Your task to perform on an android device: empty trash in google photos Image 0: 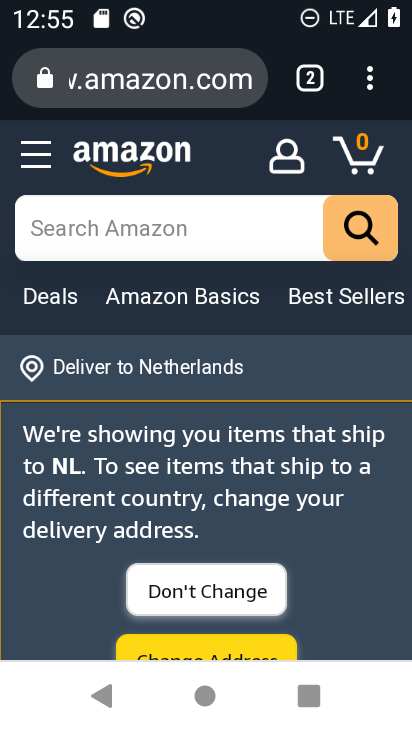
Step 0: press home button
Your task to perform on an android device: empty trash in google photos Image 1: 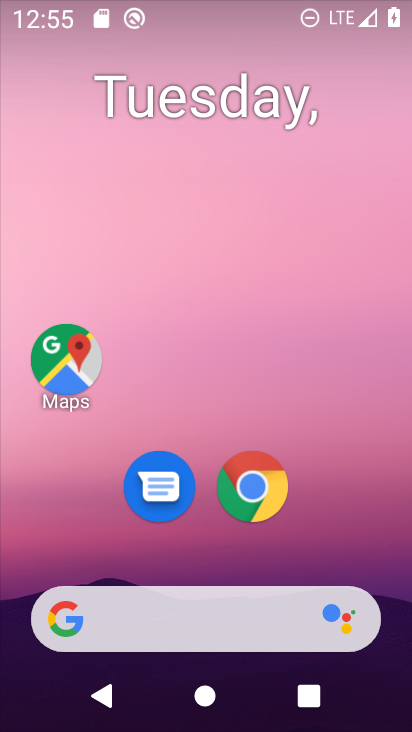
Step 1: drag from (311, 577) to (290, 130)
Your task to perform on an android device: empty trash in google photos Image 2: 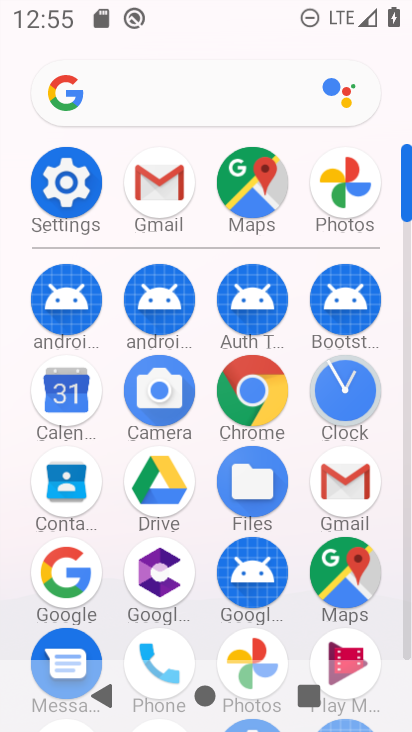
Step 2: drag from (217, 257) to (197, 50)
Your task to perform on an android device: empty trash in google photos Image 3: 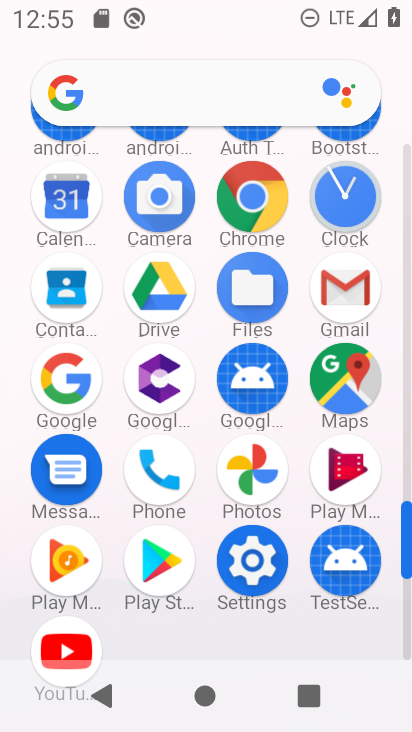
Step 3: click (262, 480)
Your task to perform on an android device: empty trash in google photos Image 4: 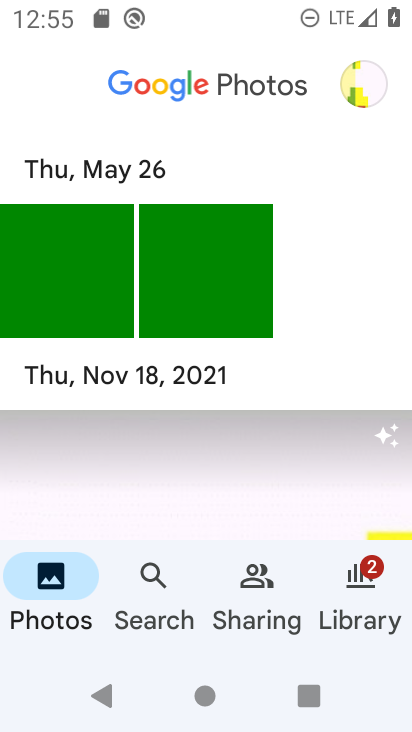
Step 4: click (371, 578)
Your task to perform on an android device: empty trash in google photos Image 5: 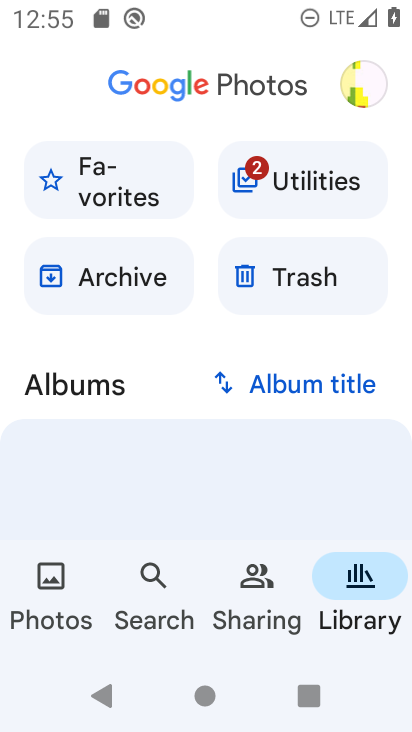
Step 5: click (333, 274)
Your task to perform on an android device: empty trash in google photos Image 6: 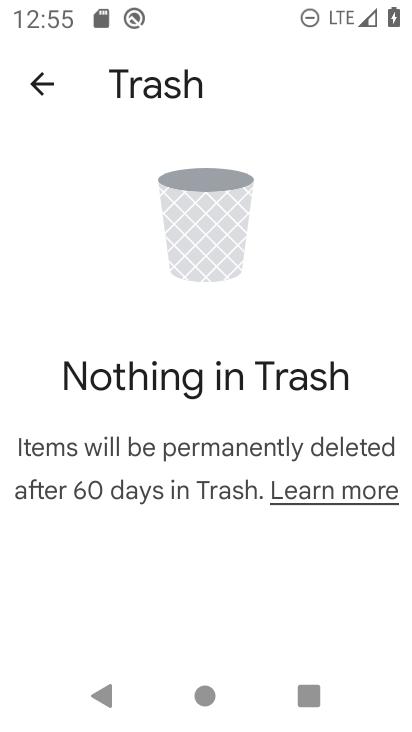
Step 6: task complete